Your task to perform on an android device: Find coffee shops on Maps Image 0: 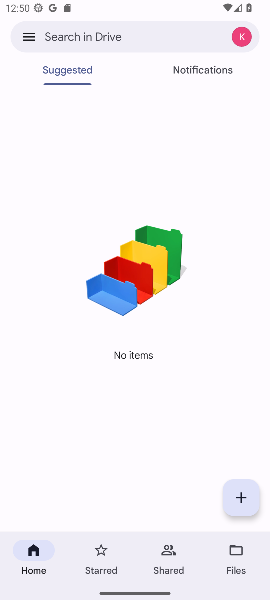
Step 0: press home button
Your task to perform on an android device: Find coffee shops on Maps Image 1: 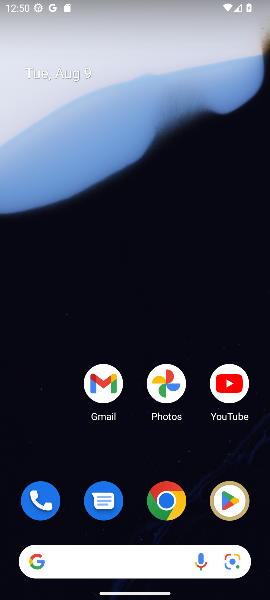
Step 1: drag from (174, 463) to (192, 70)
Your task to perform on an android device: Find coffee shops on Maps Image 2: 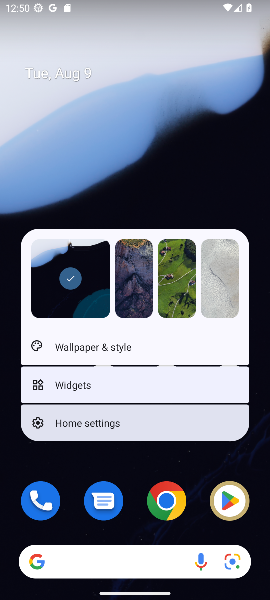
Step 2: click (149, 191)
Your task to perform on an android device: Find coffee shops on Maps Image 3: 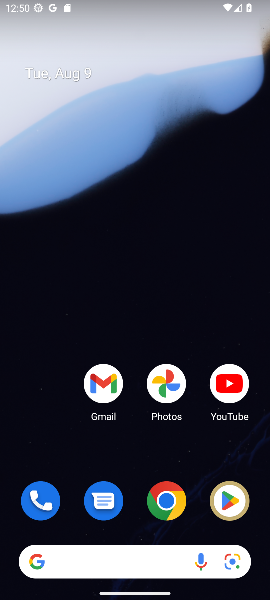
Step 3: drag from (140, 463) to (146, 211)
Your task to perform on an android device: Find coffee shops on Maps Image 4: 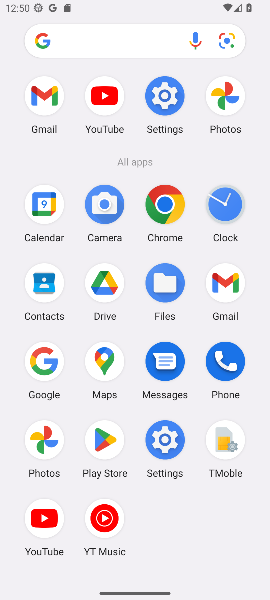
Step 4: click (103, 363)
Your task to perform on an android device: Find coffee shops on Maps Image 5: 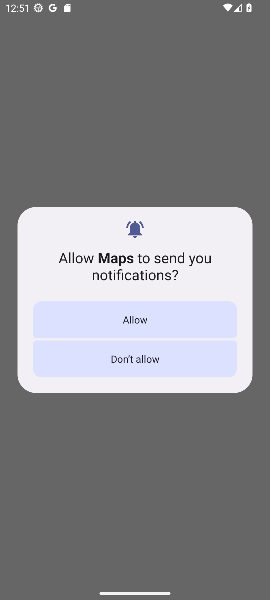
Step 5: click (163, 312)
Your task to perform on an android device: Find coffee shops on Maps Image 6: 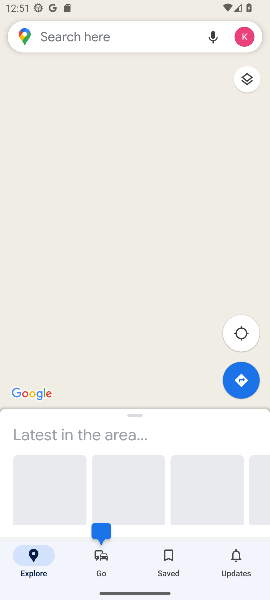
Step 6: click (129, 31)
Your task to perform on an android device: Find coffee shops on Maps Image 7: 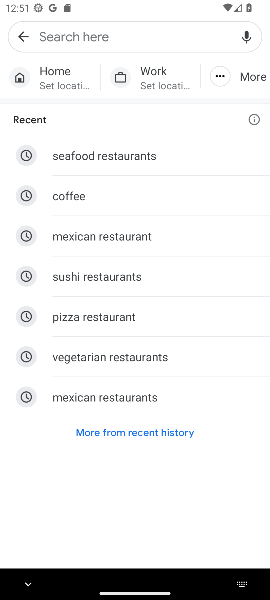
Step 7: type "coffee shops"
Your task to perform on an android device: Find coffee shops on Maps Image 8: 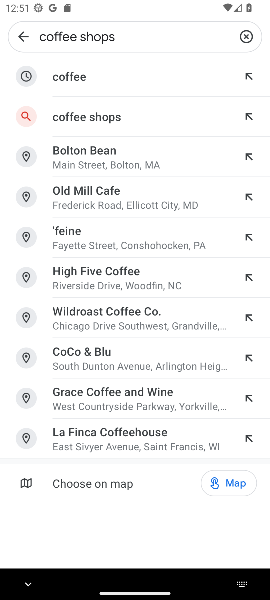
Step 8: click (94, 124)
Your task to perform on an android device: Find coffee shops on Maps Image 9: 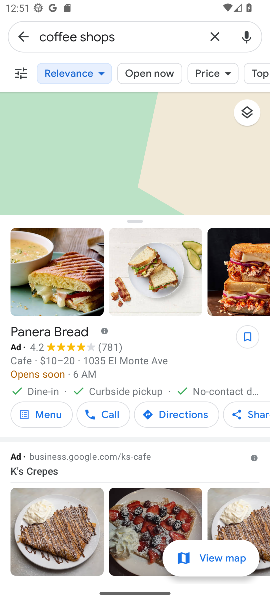
Step 9: task complete